Your task to perform on an android device: turn off smart reply in the gmail app Image 0: 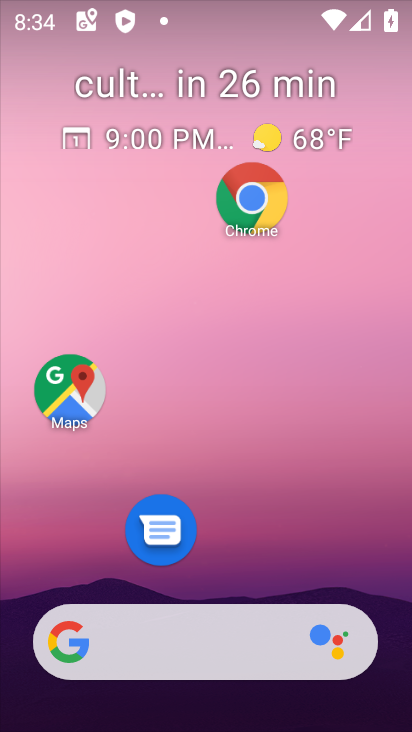
Step 0: drag from (220, 573) to (221, 136)
Your task to perform on an android device: turn off smart reply in the gmail app Image 1: 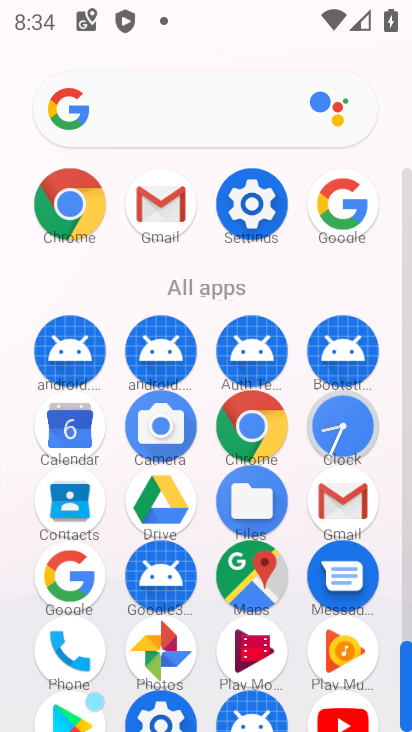
Step 1: click (340, 514)
Your task to perform on an android device: turn off smart reply in the gmail app Image 2: 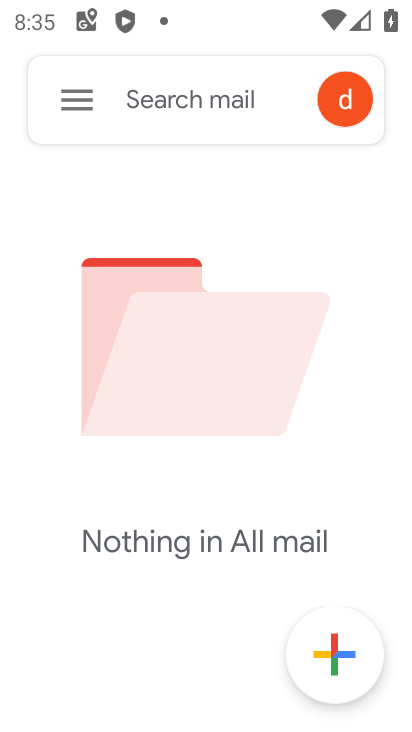
Step 2: click (69, 120)
Your task to perform on an android device: turn off smart reply in the gmail app Image 3: 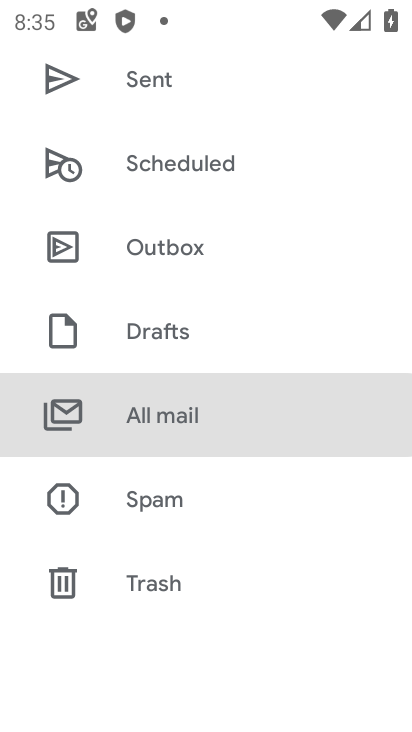
Step 3: drag from (165, 610) to (235, 311)
Your task to perform on an android device: turn off smart reply in the gmail app Image 4: 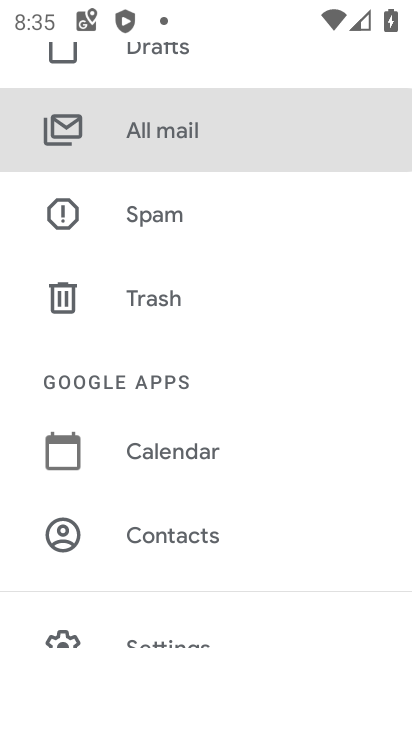
Step 4: drag from (215, 492) to (231, 247)
Your task to perform on an android device: turn off smart reply in the gmail app Image 5: 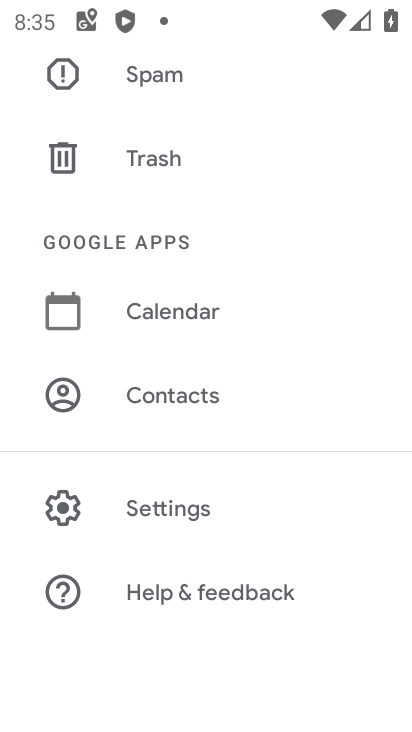
Step 5: click (190, 497)
Your task to perform on an android device: turn off smart reply in the gmail app Image 6: 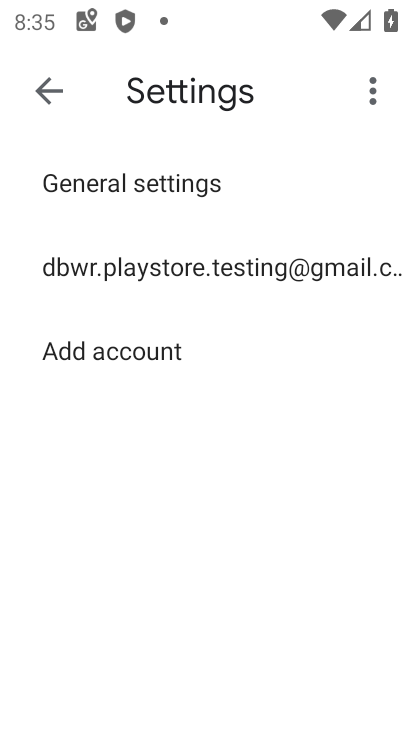
Step 6: click (186, 276)
Your task to perform on an android device: turn off smart reply in the gmail app Image 7: 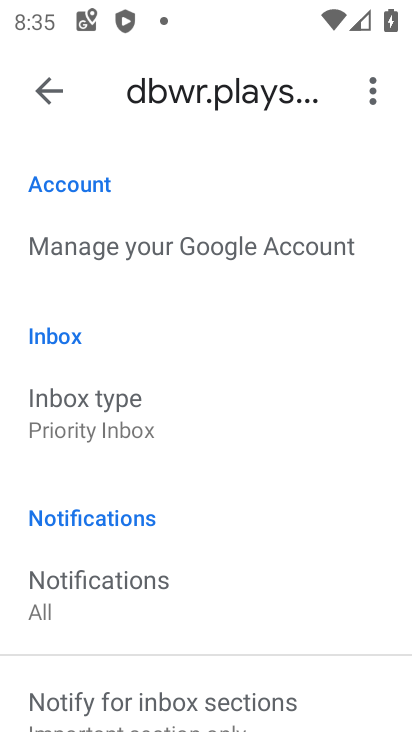
Step 7: drag from (202, 636) to (229, 232)
Your task to perform on an android device: turn off smart reply in the gmail app Image 8: 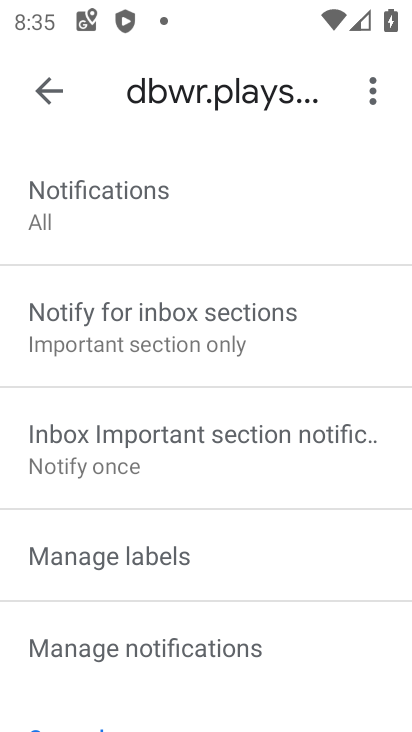
Step 8: drag from (230, 533) to (247, 240)
Your task to perform on an android device: turn off smart reply in the gmail app Image 9: 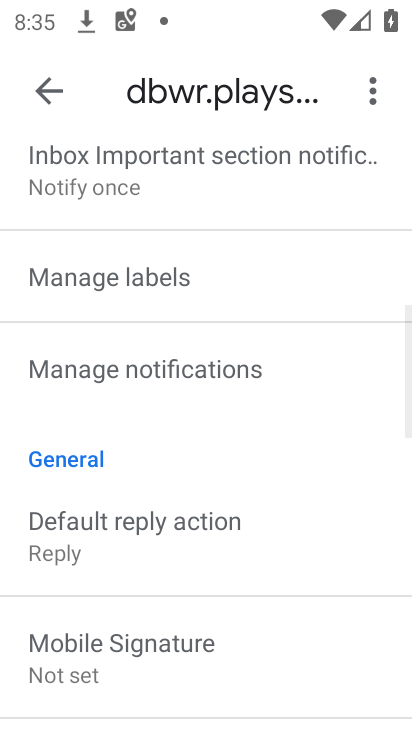
Step 9: drag from (244, 558) to (266, 285)
Your task to perform on an android device: turn off smart reply in the gmail app Image 10: 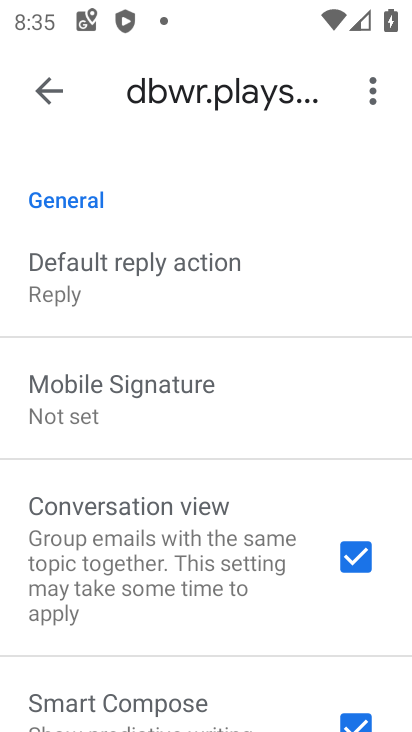
Step 10: drag from (196, 631) to (223, 264)
Your task to perform on an android device: turn off smart reply in the gmail app Image 11: 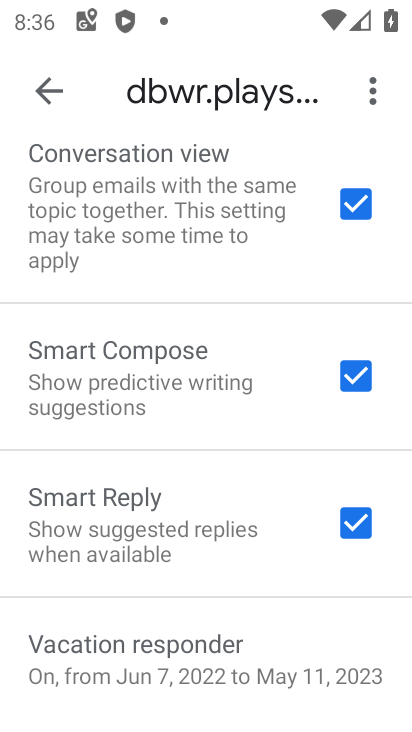
Step 11: click (367, 522)
Your task to perform on an android device: turn off smart reply in the gmail app Image 12: 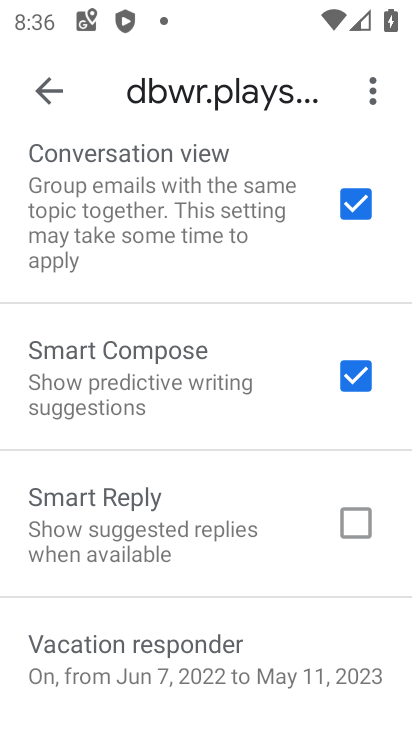
Step 12: task complete